Your task to perform on an android device: Search for pizza restaurants on Maps Image 0: 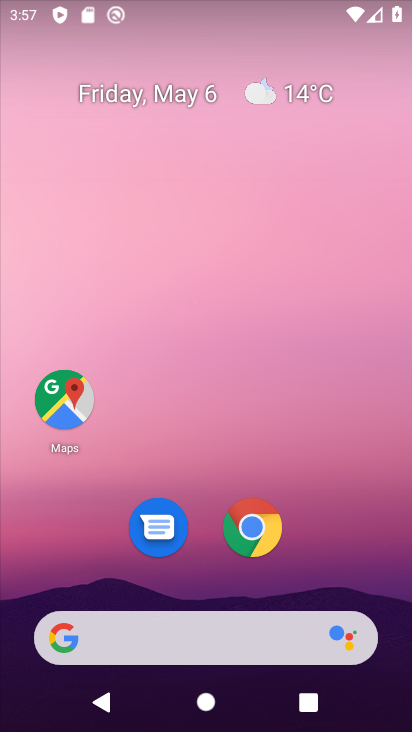
Step 0: click (61, 391)
Your task to perform on an android device: Search for pizza restaurants on Maps Image 1: 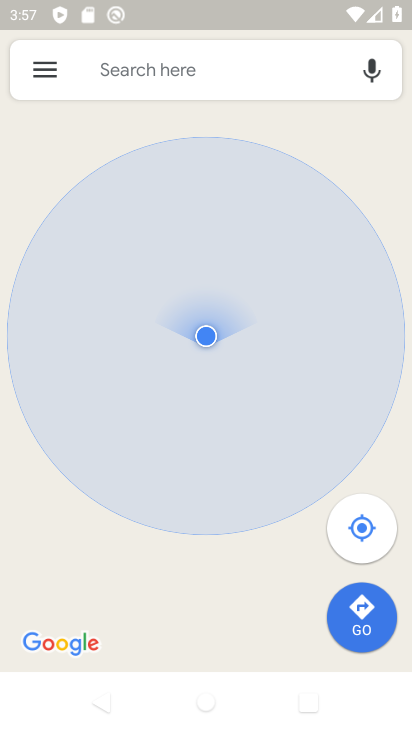
Step 1: click (125, 67)
Your task to perform on an android device: Search for pizza restaurants on Maps Image 2: 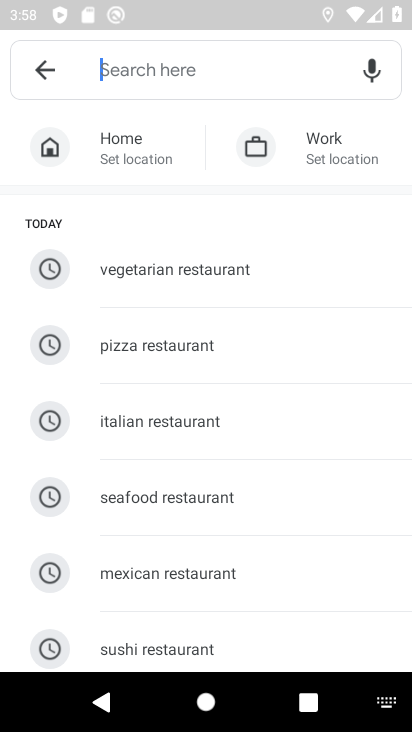
Step 2: type "pizza reastuarent"
Your task to perform on an android device: Search for pizza restaurants on Maps Image 3: 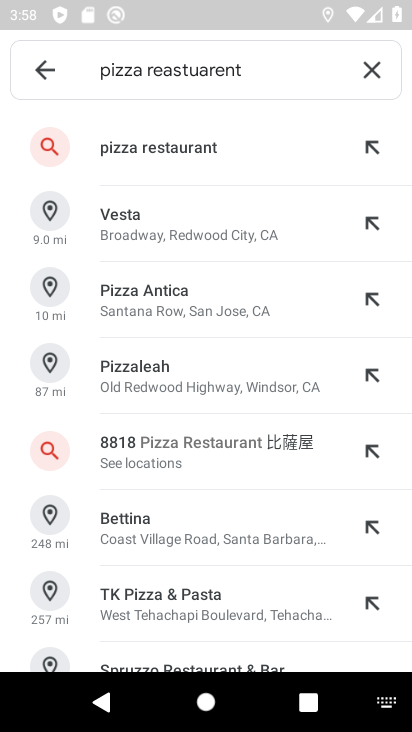
Step 3: click (168, 147)
Your task to perform on an android device: Search for pizza restaurants on Maps Image 4: 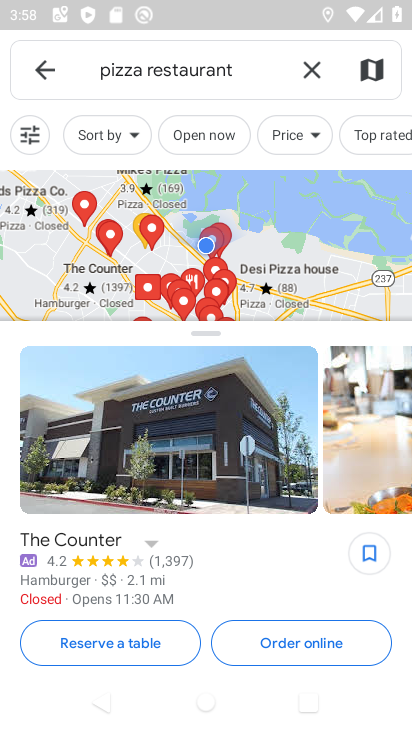
Step 4: task complete